Your task to perform on an android device: turn on translation in the chrome app Image 0: 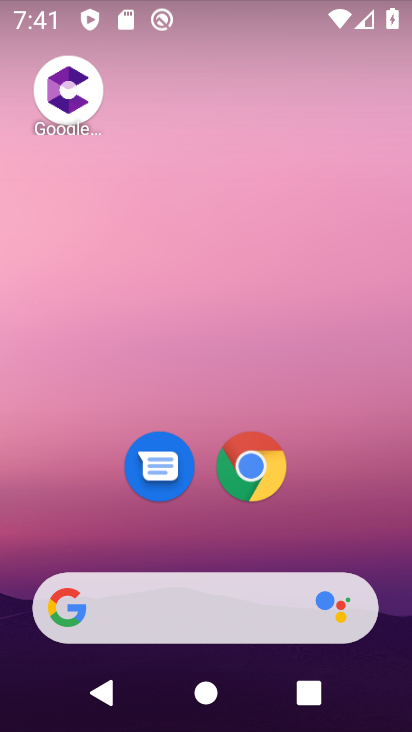
Step 0: click (243, 469)
Your task to perform on an android device: turn on translation in the chrome app Image 1: 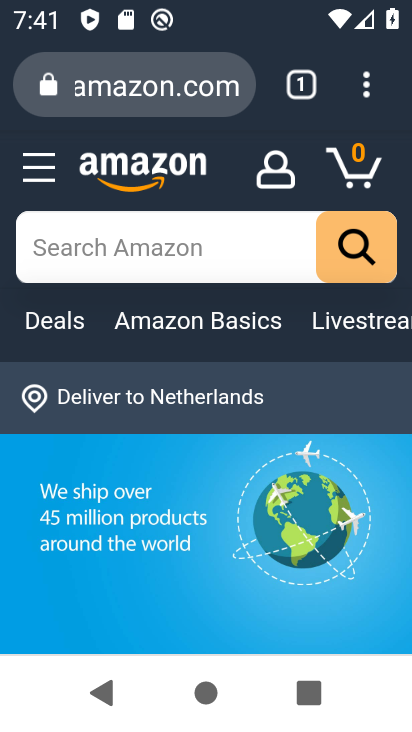
Step 1: click (367, 89)
Your task to perform on an android device: turn on translation in the chrome app Image 2: 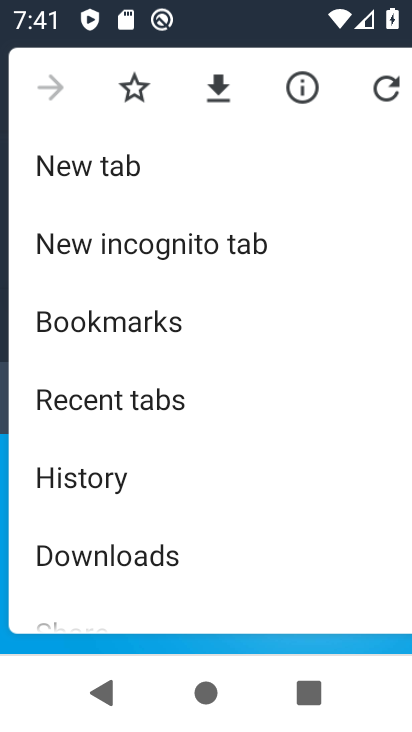
Step 2: drag from (63, 562) to (314, 107)
Your task to perform on an android device: turn on translation in the chrome app Image 3: 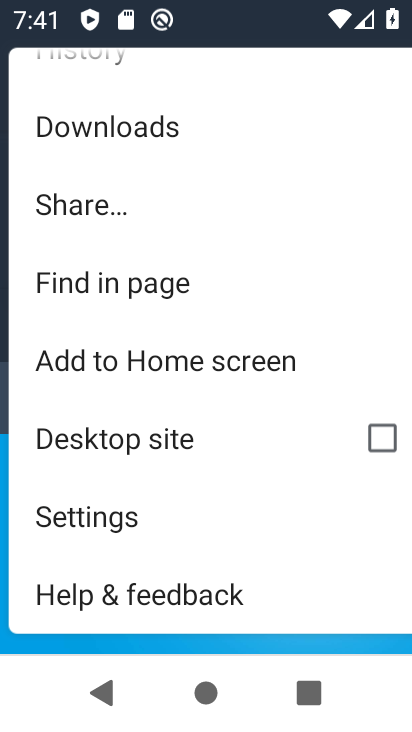
Step 3: click (79, 570)
Your task to perform on an android device: turn on translation in the chrome app Image 4: 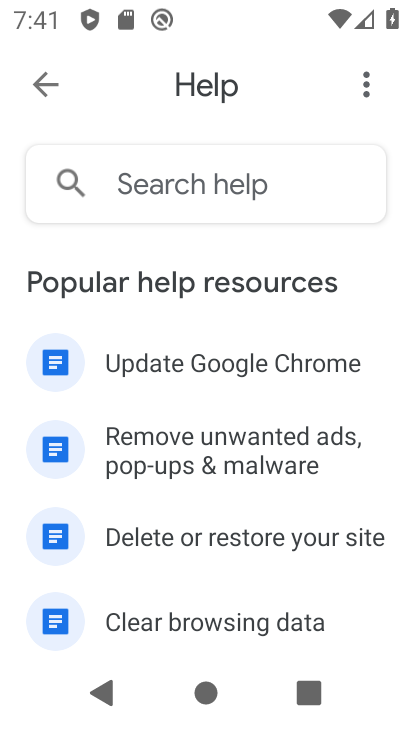
Step 4: press back button
Your task to perform on an android device: turn on translation in the chrome app Image 5: 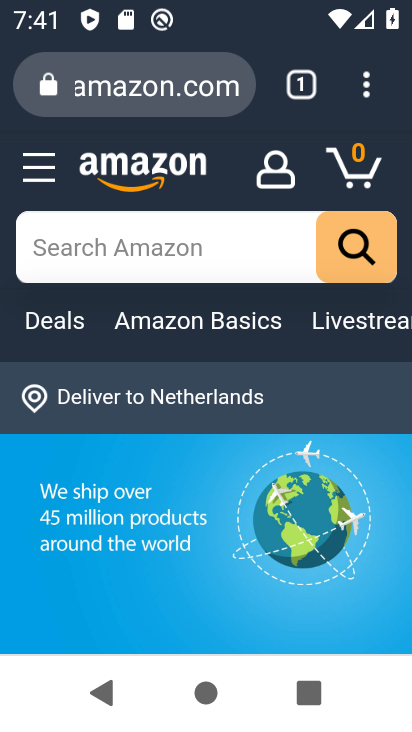
Step 5: click (371, 87)
Your task to perform on an android device: turn on translation in the chrome app Image 6: 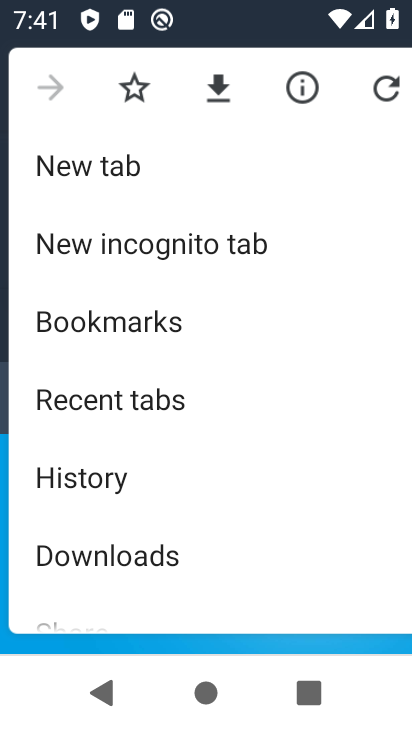
Step 6: drag from (30, 525) to (368, 97)
Your task to perform on an android device: turn on translation in the chrome app Image 7: 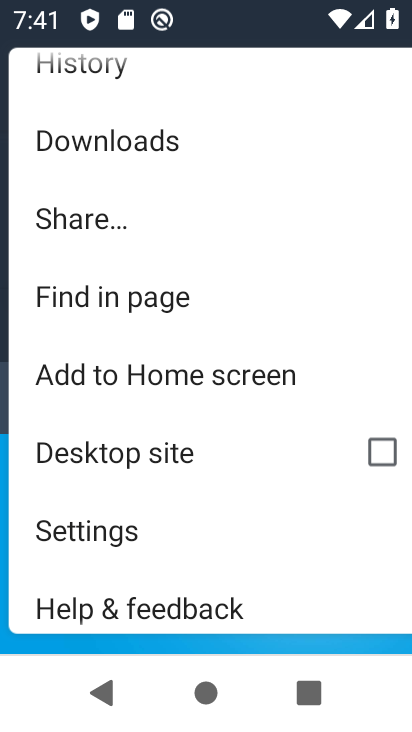
Step 7: click (75, 525)
Your task to perform on an android device: turn on translation in the chrome app Image 8: 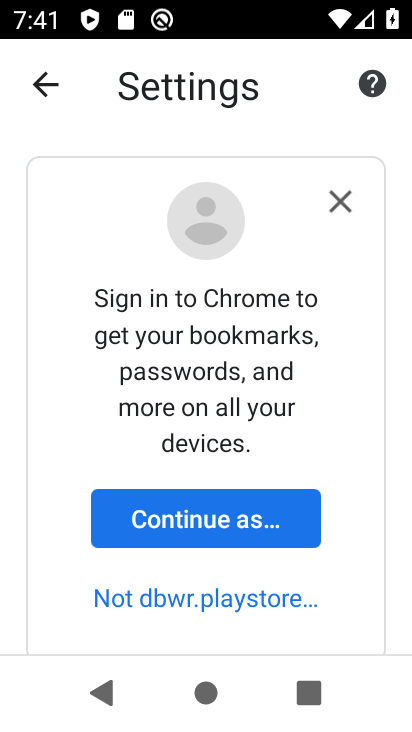
Step 8: click (331, 199)
Your task to perform on an android device: turn on translation in the chrome app Image 9: 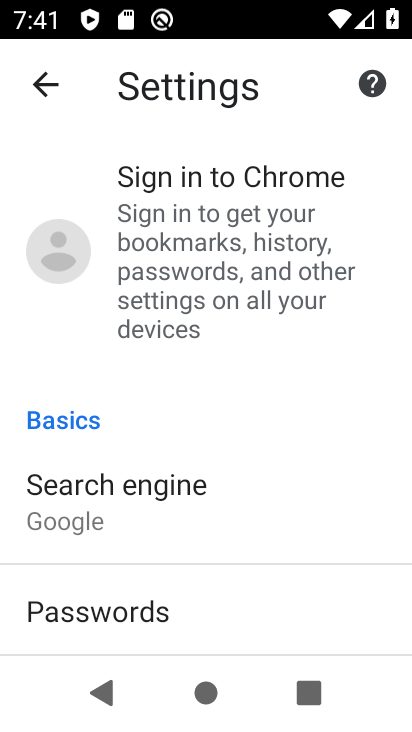
Step 9: drag from (25, 588) to (319, 202)
Your task to perform on an android device: turn on translation in the chrome app Image 10: 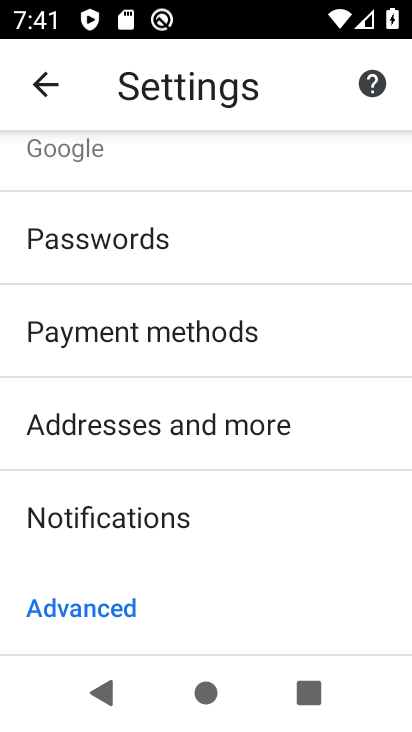
Step 10: drag from (12, 650) to (305, 253)
Your task to perform on an android device: turn on translation in the chrome app Image 11: 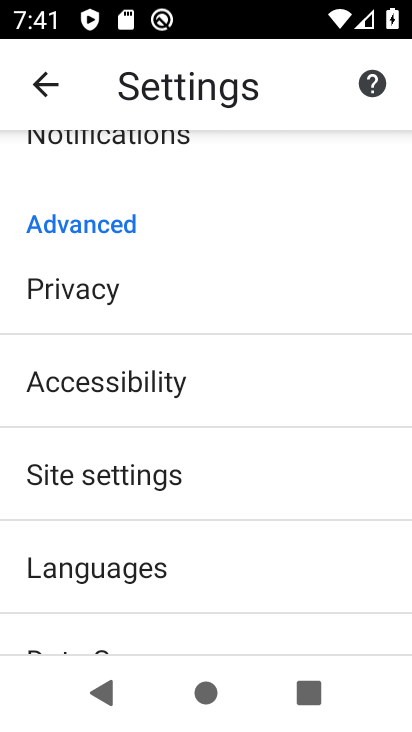
Step 11: drag from (10, 565) to (248, 305)
Your task to perform on an android device: turn on translation in the chrome app Image 12: 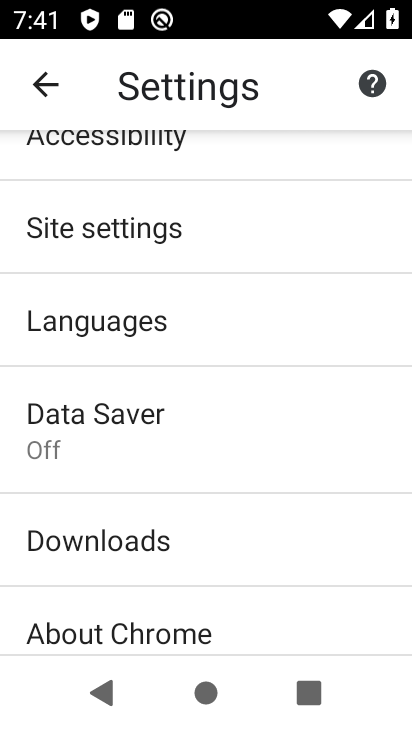
Step 12: click (110, 329)
Your task to perform on an android device: turn on translation in the chrome app Image 13: 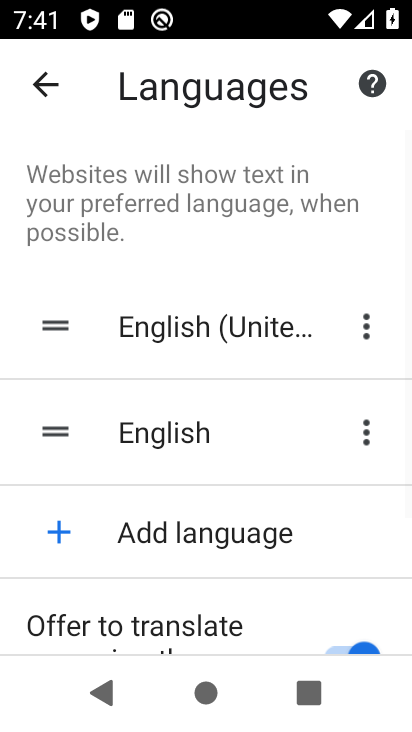
Step 13: task complete